Your task to perform on an android device: Do I have any events today? Image 0: 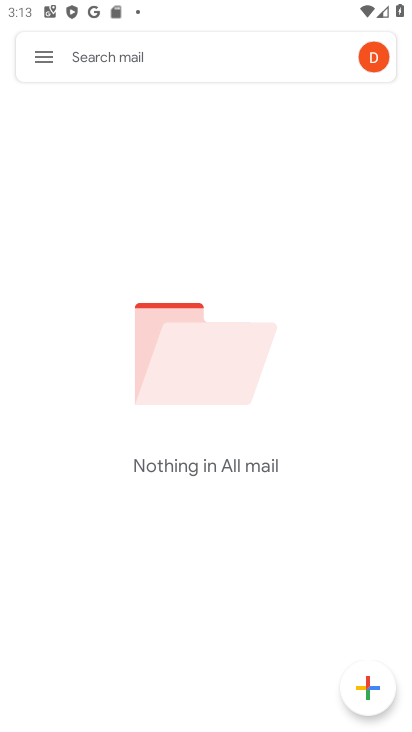
Step 0: press home button
Your task to perform on an android device: Do I have any events today? Image 1: 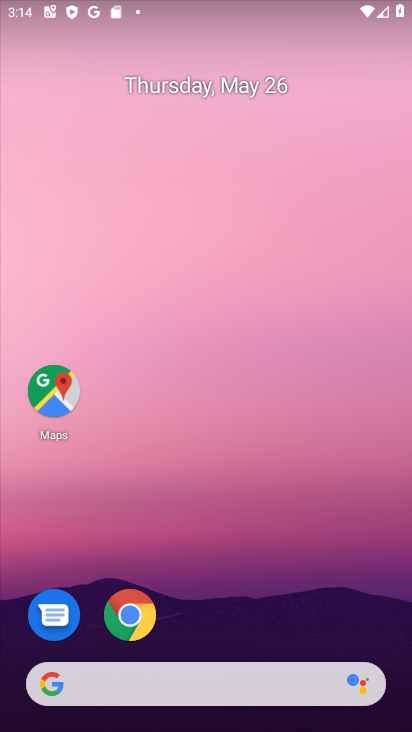
Step 1: drag from (234, 618) to (259, 372)
Your task to perform on an android device: Do I have any events today? Image 2: 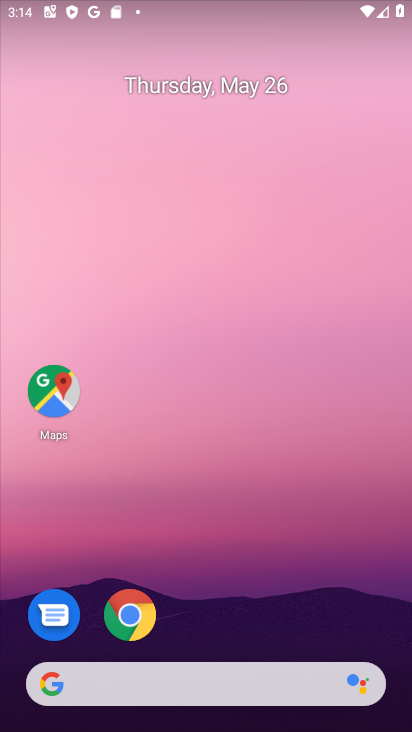
Step 2: drag from (173, 582) to (196, 350)
Your task to perform on an android device: Do I have any events today? Image 3: 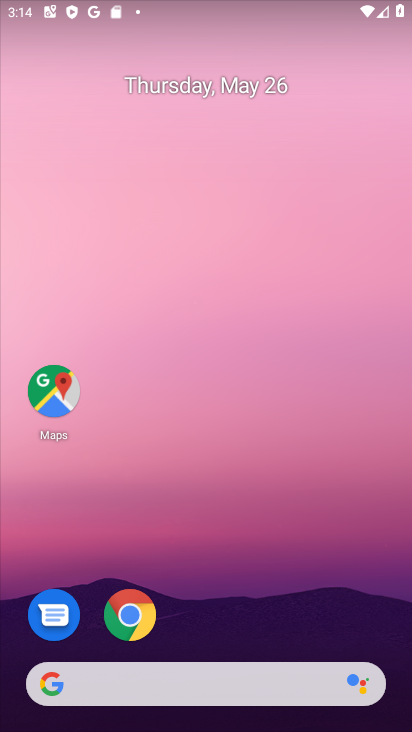
Step 3: drag from (212, 619) to (174, 3)
Your task to perform on an android device: Do I have any events today? Image 4: 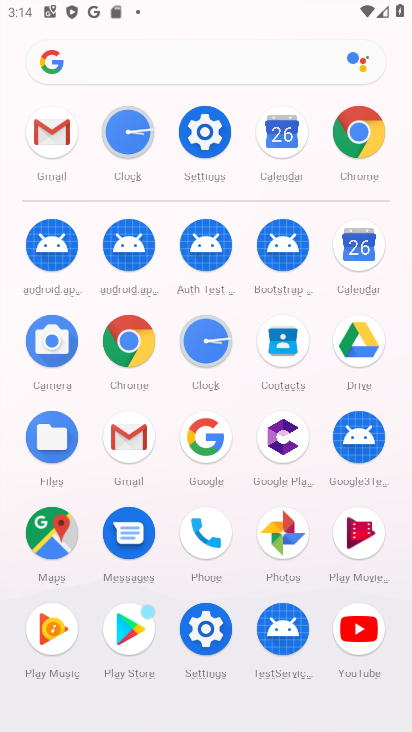
Step 4: click (352, 291)
Your task to perform on an android device: Do I have any events today? Image 5: 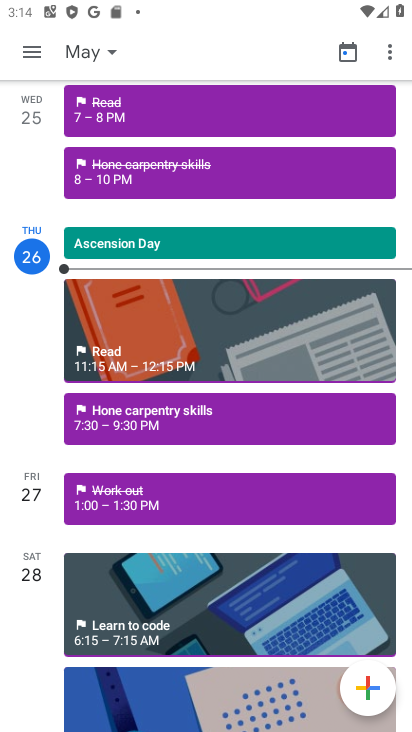
Step 5: task complete